Your task to perform on an android device: open wifi settings Image 0: 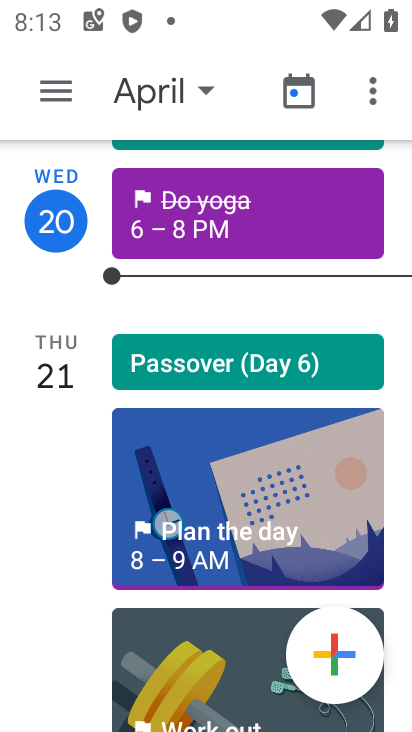
Step 0: press home button
Your task to perform on an android device: open wifi settings Image 1: 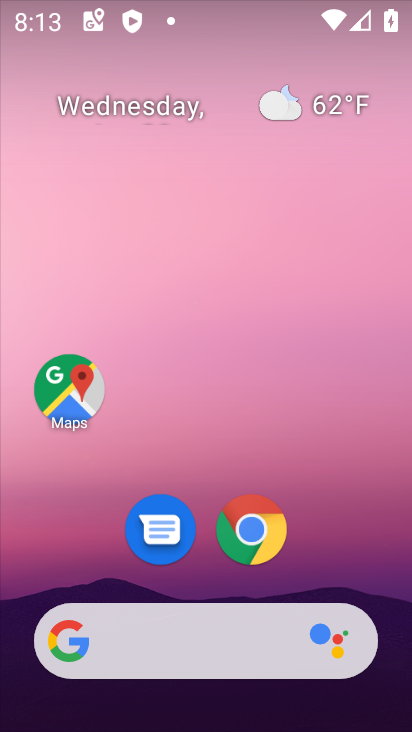
Step 1: drag from (197, 576) to (131, 142)
Your task to perform on an android device: open wifi settings Image 2: 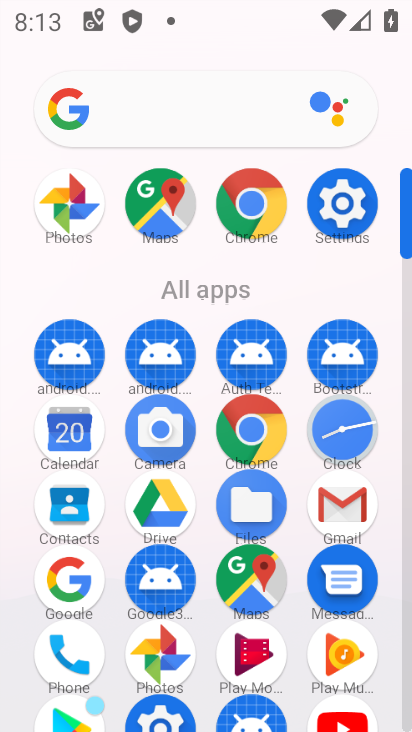
Step 2: click (333, 198)
Your task to perform on an android device: open wifi settings Image 3: 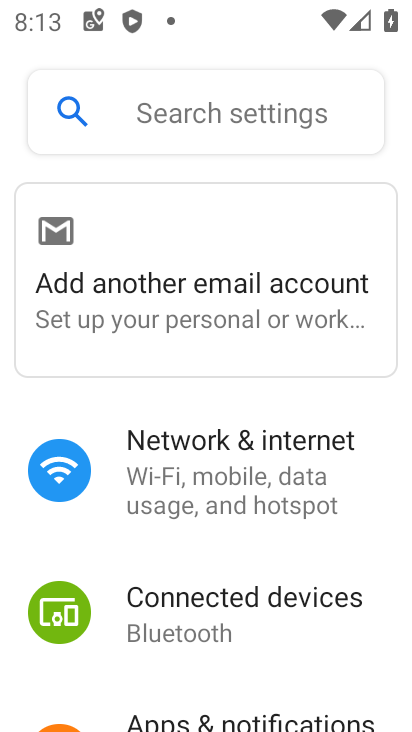
Step 3: click (278, 457)
Your task to perform on an android device: open wifi settings Image 4: 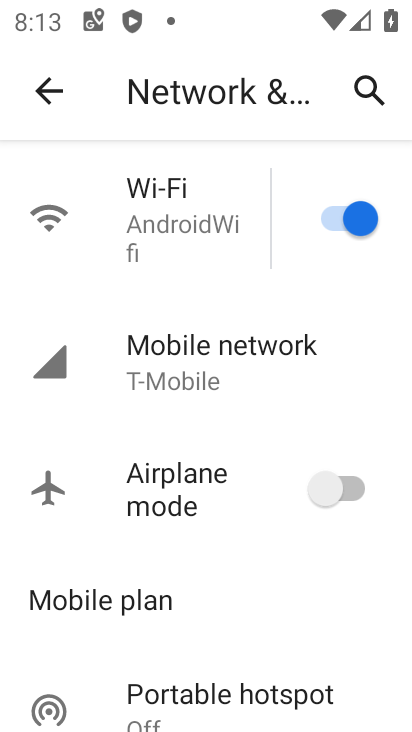
Step 4: click (165, 227)
Your task to perform on an android device: open wifi settings Image 5: 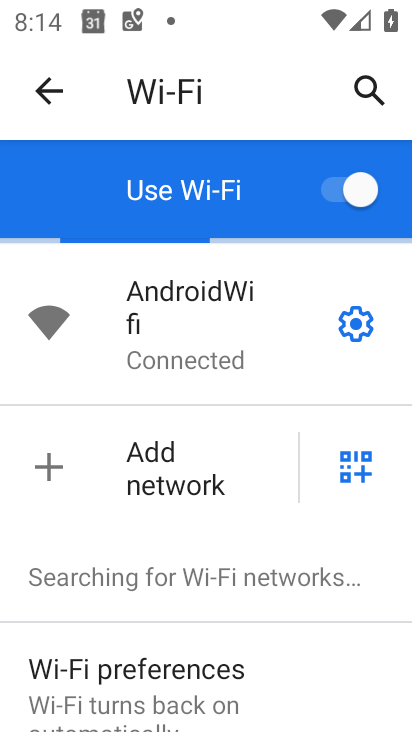
Step 5: task complete